Your task to perform on an android device: move a message to another label in the gmail app Image 0: 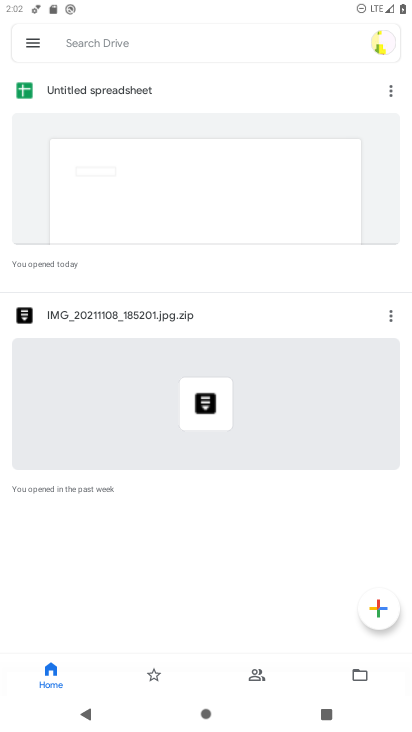
Step 0: press home button
Your task to perform on an android device: move a message to another label in the gmail app Image 1: 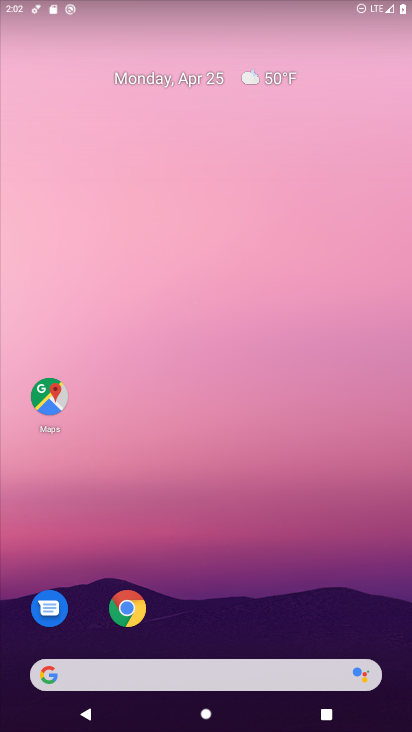
Step 1: drag from (356, 612) to (270, 108)
Your task to perform on an android device: move a message to another label in the gmail app Image 2: 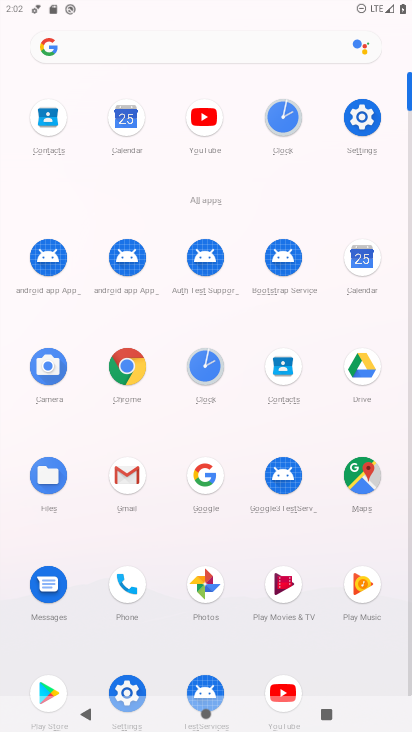
Step 2: click (119, 487)
Your task to perform on an android device: move a message to another label in the gmail app Image 3: 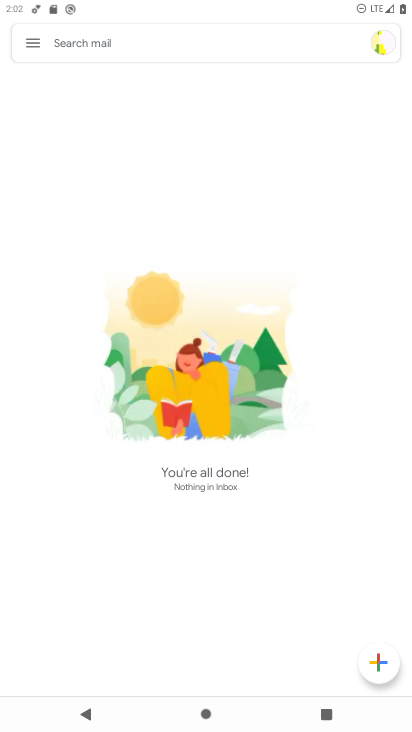
Step 3: task complete